Your task to perform on an android device: add a contact in the contacts app Image 0: 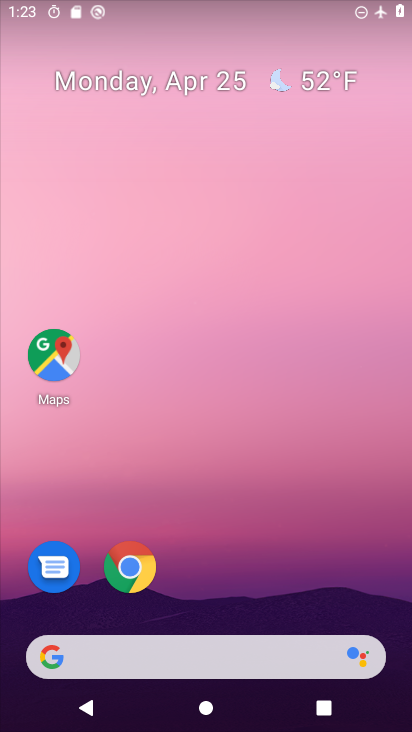
Step 0: drag from (324, 537) to (256, 109)
Your task to perform on an android device: add a contact in the contacts app Image 1: 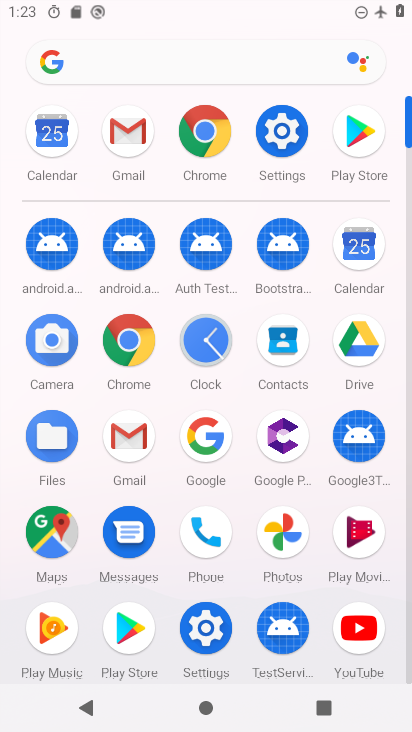
Step 1: click (291, 342)
Your task to perform on an android device: add a contact in the contacts app Image 2: 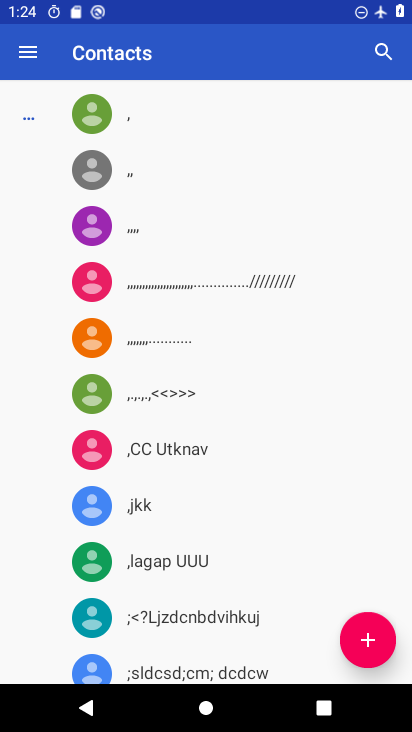
Step 2: click (367, 633)
Your task to perform on an android device: add a contact in the contacts app Image 3: 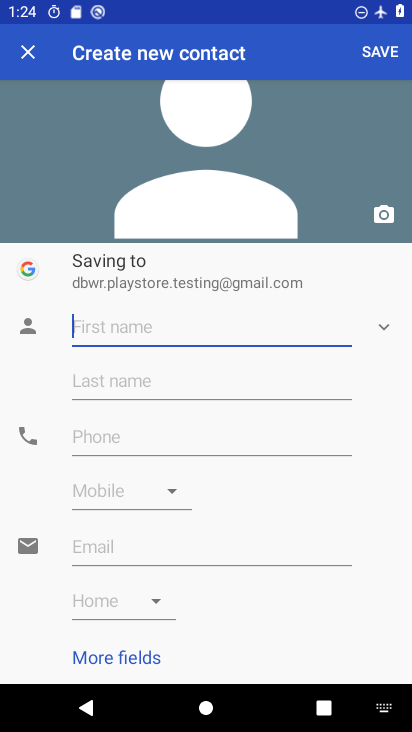
Step 3: type "Ramdan "
Your task to perform on an android device: add a contact in the contacts app Image 4: 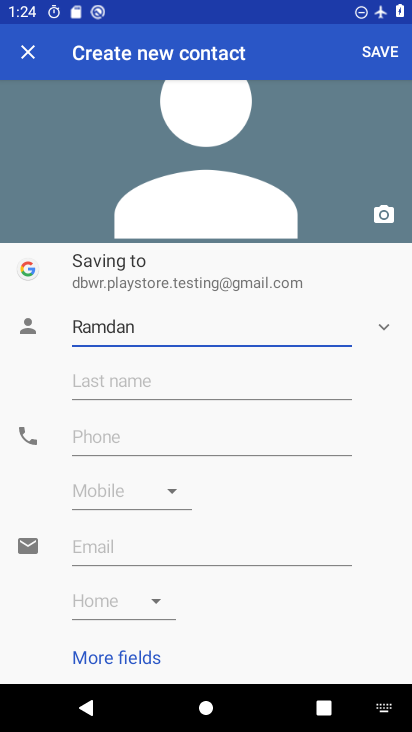
Step 4: click (274, 434)
Your task to perform on an android device: add a contact in the contacts app Image 5: 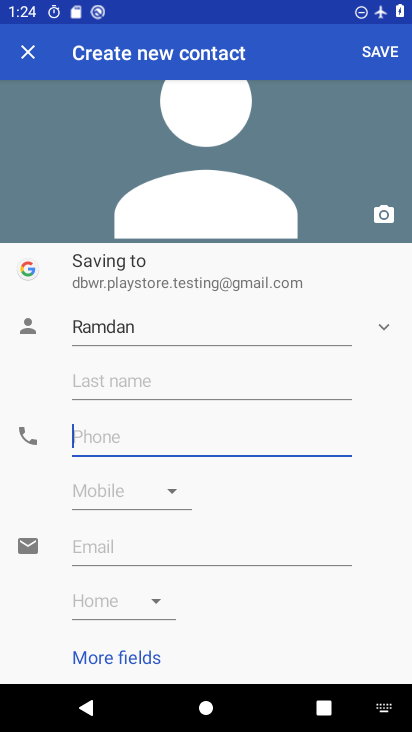
Step 5: type "91223322332233"
Your task to perform on an android device: add a contact in the contacts app Image 6: 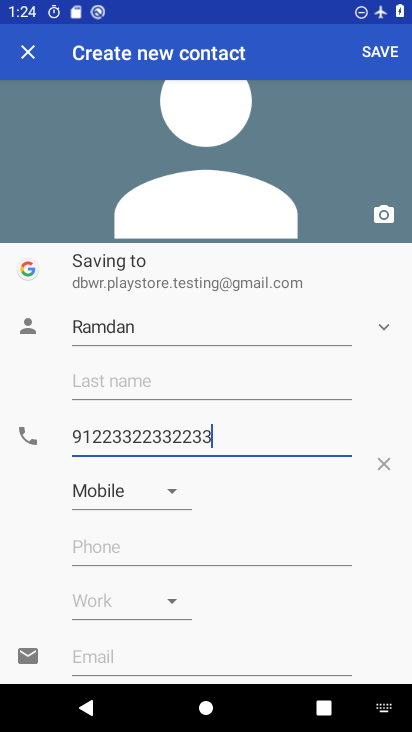
Step 6: click (377, 43)
Your task to perform on an android device: add a contact in the contacts app Image 7: 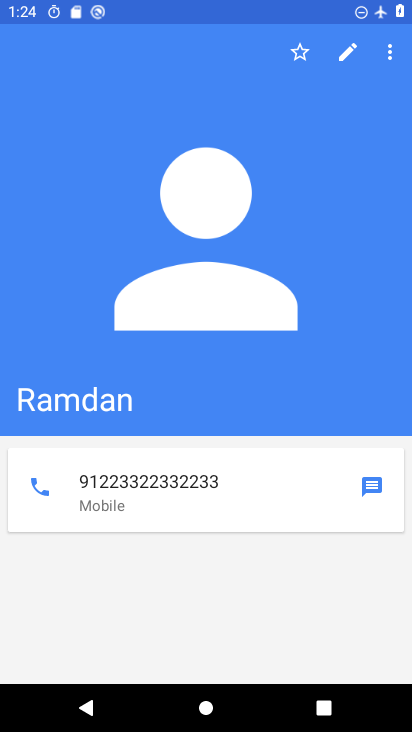
Step 7: task complete